Your task to perform on an android device: turn off sleep mode Image 0: 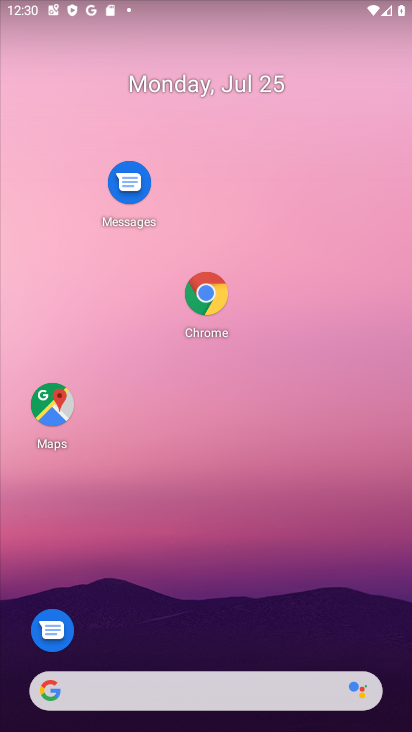
Step 0: drag from (157, 550) to (130, 69)
Your task to perform on an android device: turn off sleep mode Image 1: 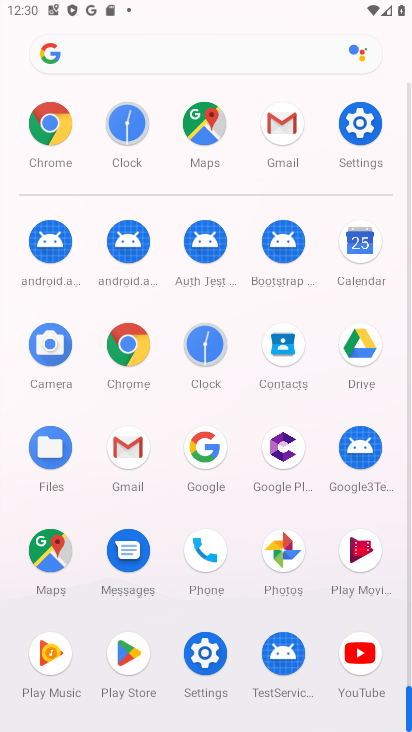
Step 1: click (197, 651)
Your task to perform on an android device: turn off sleep mode Image 2: 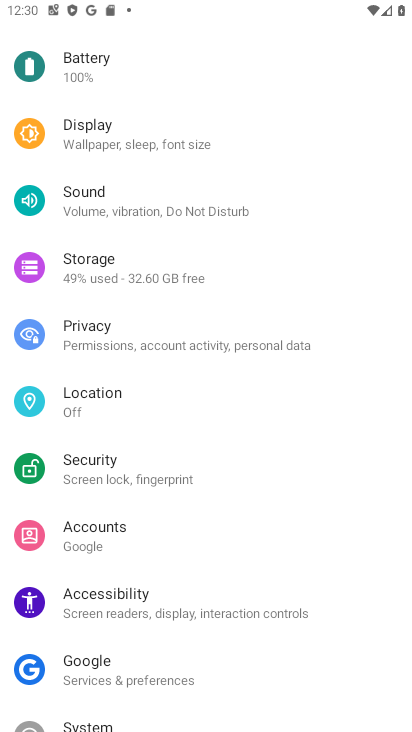
Step 2: drag from (187, 574) to (192, 69)
Your task to perform on an android device: turn off sleep mode Image 3: 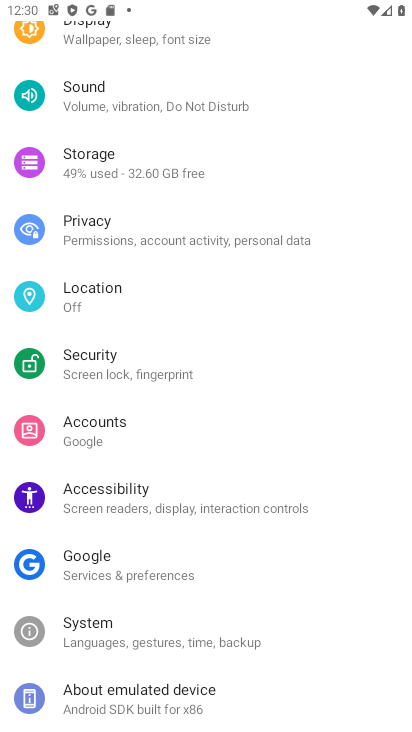
Step 3: drag from (139, 150) to (135, 464)
Your task to perform on an android device: turn off sleep mode Image 4: 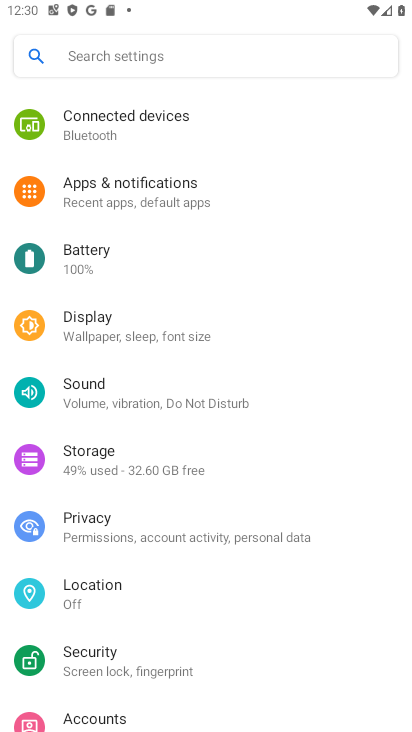
Step 4: click (98, 327)
Your task to perform on an android device: turn off sleep mode Image 5: 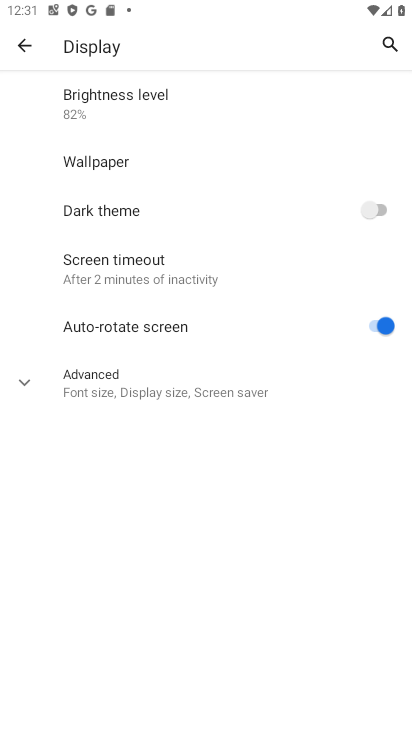
Step 5: task complete